Your task to perform on an android device: add a label to a message in the gmail app Image 0: 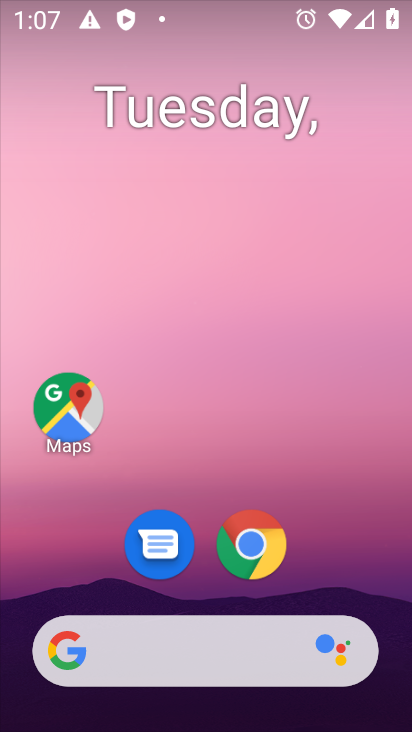
Step 0: drag from (210, 6) to (151, 1)
Your task to perform on an android device: add a label to a message in the gmail app Image 1: 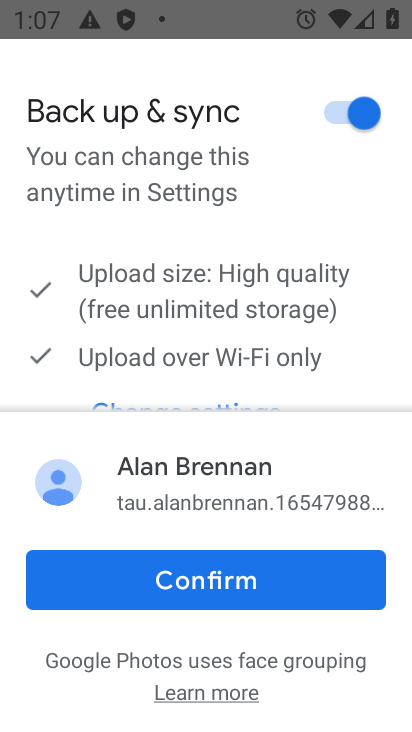
Step 1: press home button
Your task to perform on an android device: add a label to a message in the gmail app Image 2: 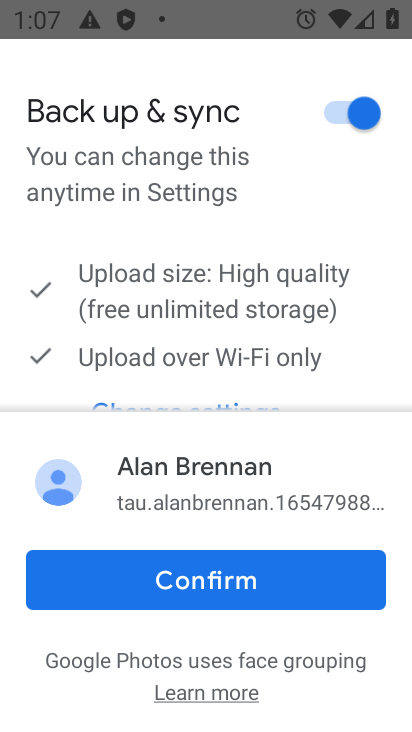
Step 2: press home button
Your task to perform on an android device: add a label to a message in the gmail app Image 3: 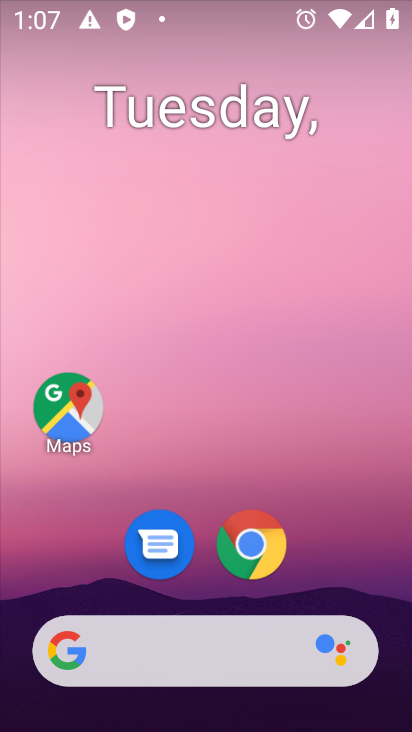
Step 3: drag from (352, 533) to (195, 0)
Your task to perform on an android device: add a label to a message in the gmail app Image 4: 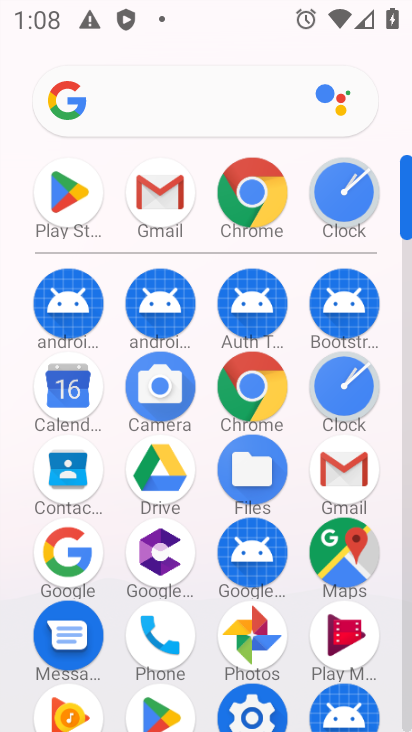
Step 4: click (151, 195)
Your task to perform on an android device: add a label to a message in the gmail app Image 5: 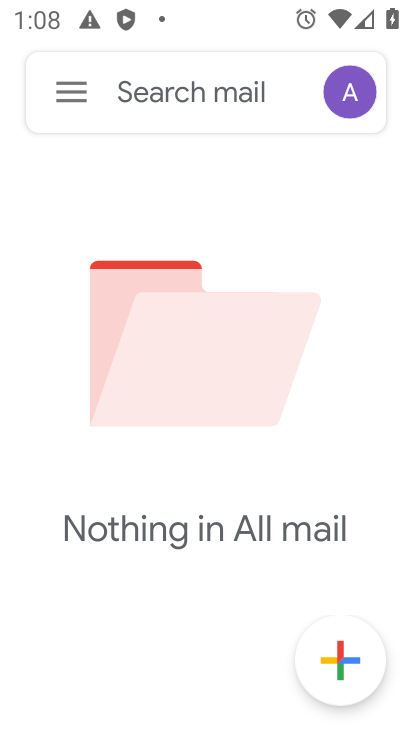
Step 5: task complete